Your task to perform on an android device: Show the shopping cart on costco. Search for "apple airpods" on costco, select the first entry, add it to the cart, then select checkout. Image 0: 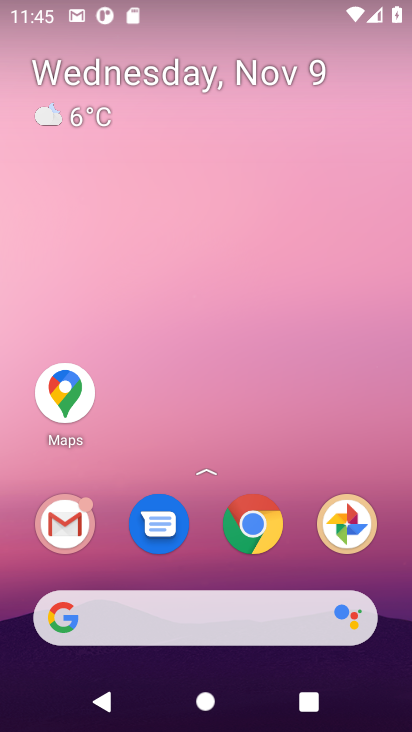
Step 0: click (256, 526)
Your task to perform on an android device: Show the shopping cart on costco. Search for "apple airpods" on costco, select the first entry, add it to the cart, then select checkout. Image 1: 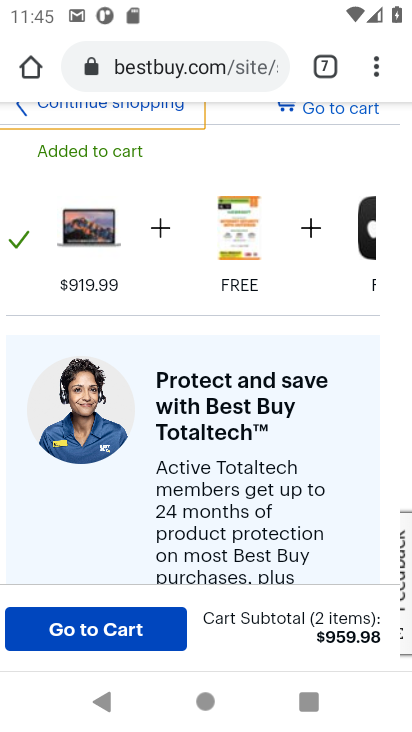
Step 1: click (328, 70)
Your task to perform on an android device: Show the shopping cart on costco. Search for "apple airpods" on costco, select the first entry, add it to the cart, then select checkout. Image 2: 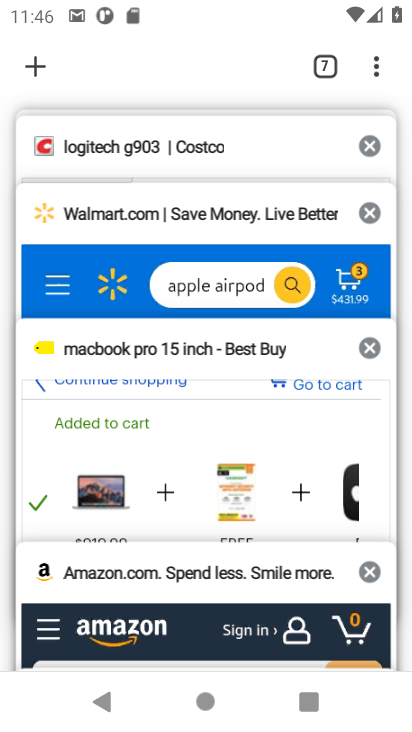
Step 2: click (175, 141)
Your task to perform on an android device: Show the shopping cart on costco. Search for "apple airpods" on costco, select the first entry, add it to the cart, then select checkout. Image 3: 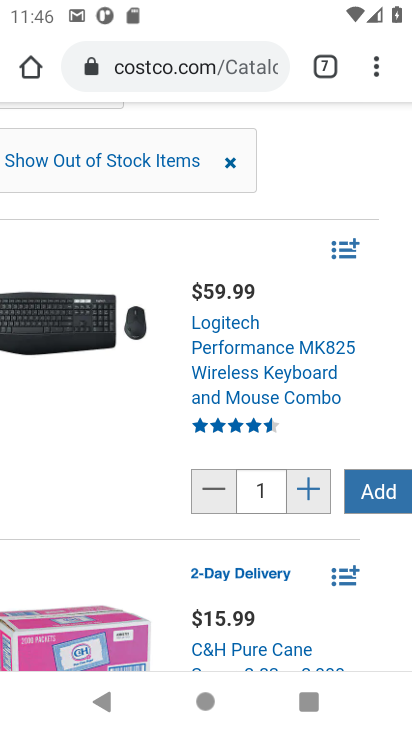
Step 3: drag from (328, 161) to (297, 454)
Your task to perform on an android device: Show the shopping cart on costco. Search for "apple airpods" on costco, select the first entry, add it to the cart, then select checkout. Image 4: 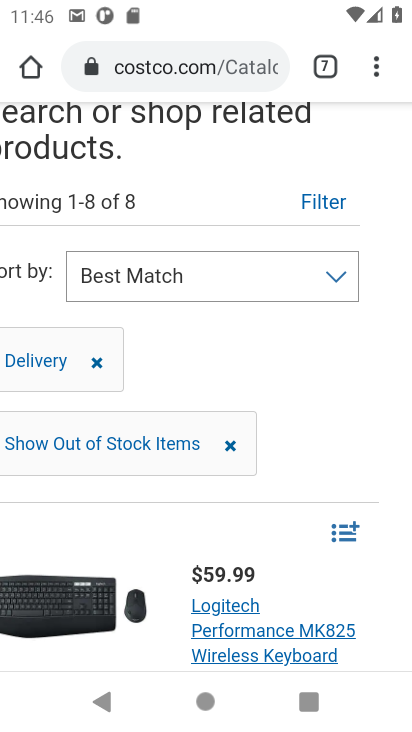
Step 4: drag from (209, 177) to (123, 549)
Your task to perform on an android device: Show the shopping cart on costco. Search for "apple airpods" on costco, select the first entry, add it to the cart, then select checkout. Image 5: 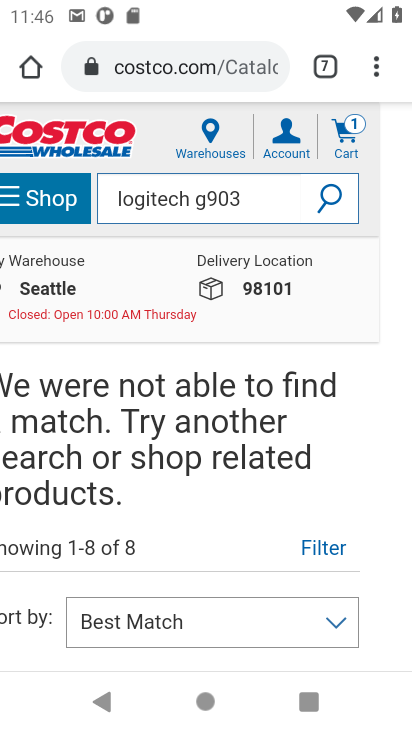
Step 5: click (168, 192)
Your task to perform on an android device: Show the shopping cart on costco. Search for "apple airpods" on costco, select the first entry, add it to the cart, then select checkout. Image 6: 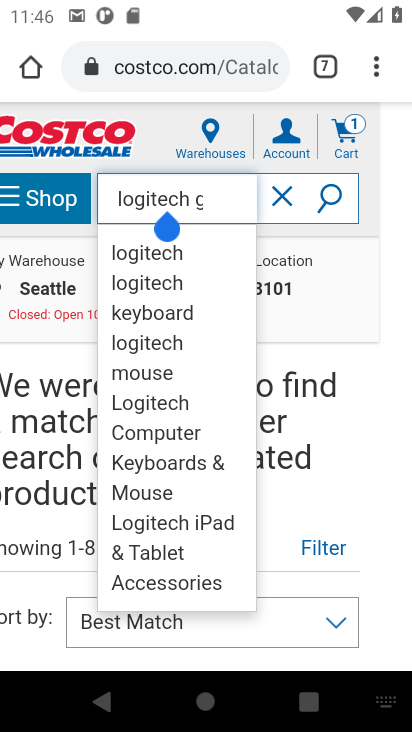
Step 6: click (285, 187)
Your task to perform on an android device: Show the shopping cart on costco. Search for "apple airpods" on costco, select the first entry, add it to the cart, then select checkout. Image 7: 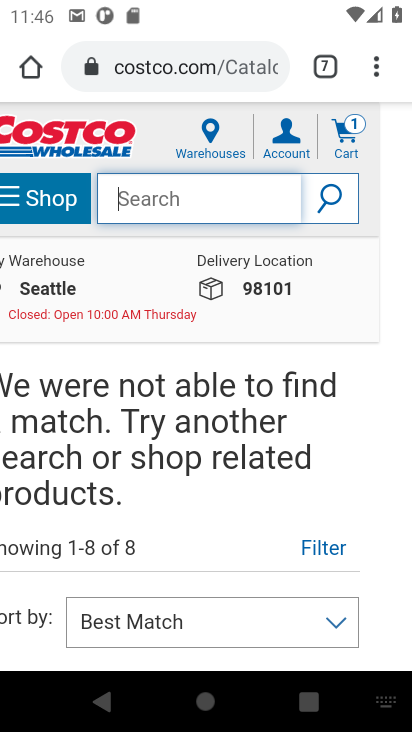
Step 7: type "apple airpods"
Your task to perform on an android device: Show the shopping cart on costco. Search for "apple airpods" on costco, select the first entry, add it to the cart, then select checkout. Image 8: 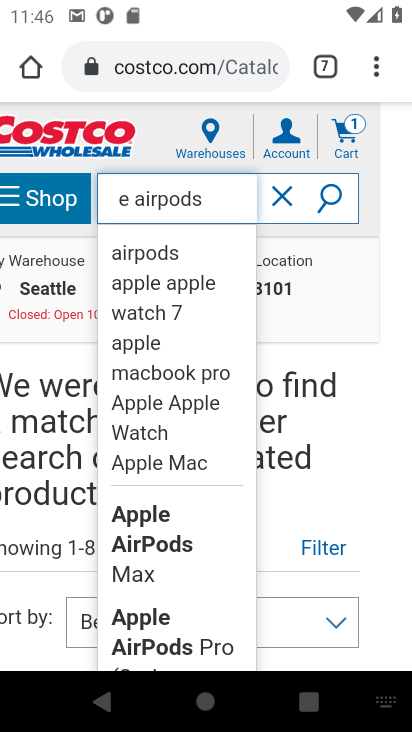
Step 8: click (329, 192)
Your task to perform on an android device: Show the shopping cart on costco. Search for "apple airpods" on costco, select the first entry, add it to the cart, then select checkout. Image 9: 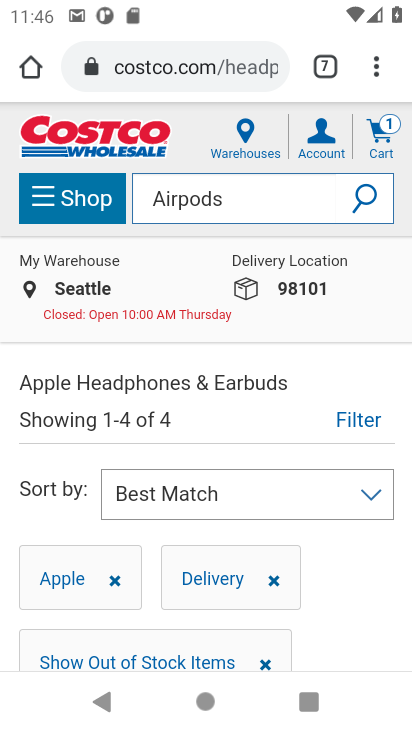
Step 9: drag from (343, 588) to (338, 224)
Your task to perform on an android device: Show the shopping cart on costco. Search for "apple airpods" on costco, select the first entry, add it to the cart, then select checkout. Image 10: 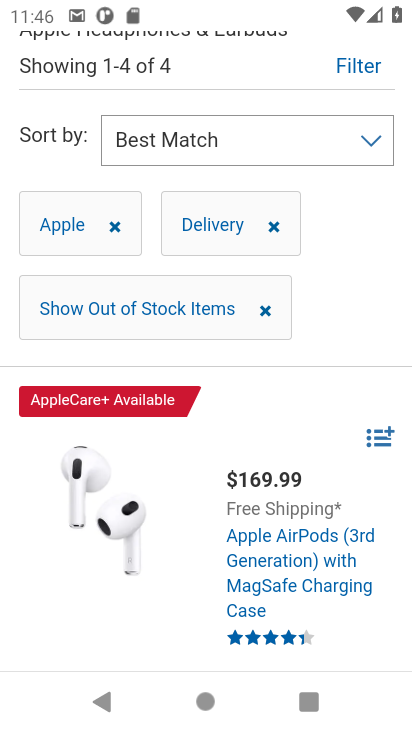
Step 10: drag from (195, 582) to (304, 304)
Your task to perform on an android device: Show the shopping cart on costco. Search for "apple airpods" on costco, select the first entry, add it to the cart, then select checkout. Image 11: 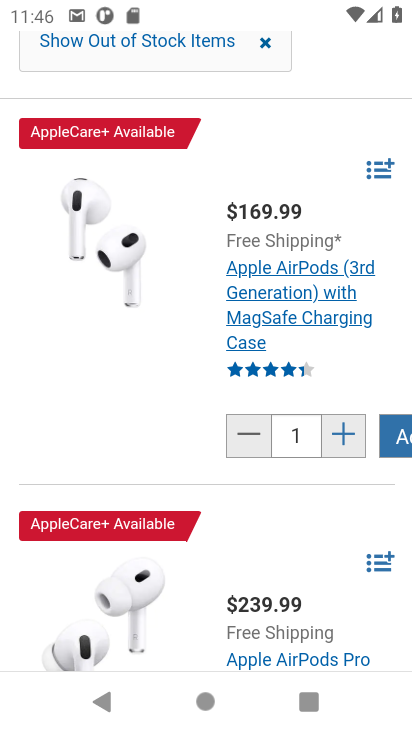
Step 11: click (395, 446)
Your task to perform on an android device: Show the shopping cart on costco. Search for "apple airpods" on costco, select the first entry, add it to the cart, then select checkout. Image 12: 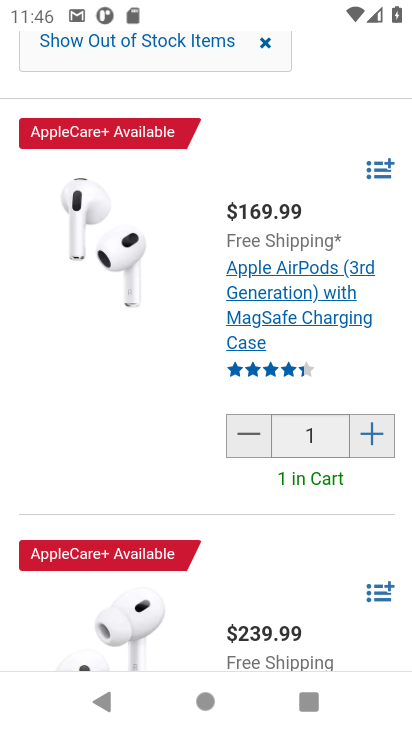
Step 12: task complete